Your task to perform on an android device: Go to eBay Image 0: 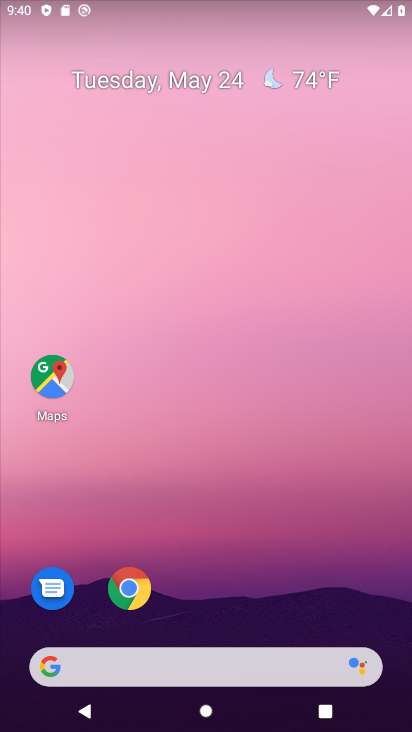
Step 0: click (135, 583)
Your task to perform on an android device: Go to eBay Image 1: 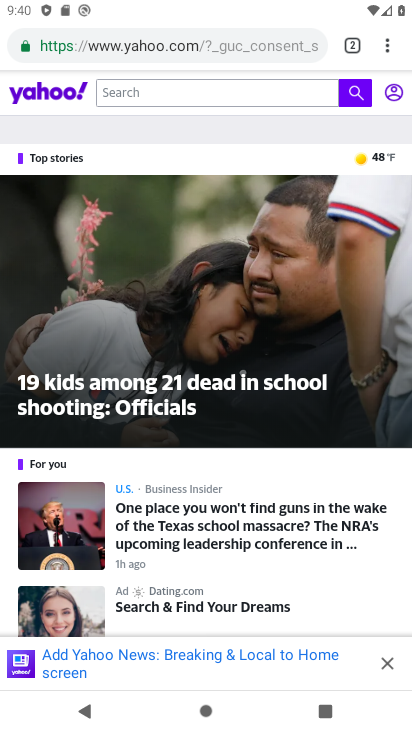
Step 1: click (357, 50)
Your task to perform on an android device: Go to eBay Image 2: 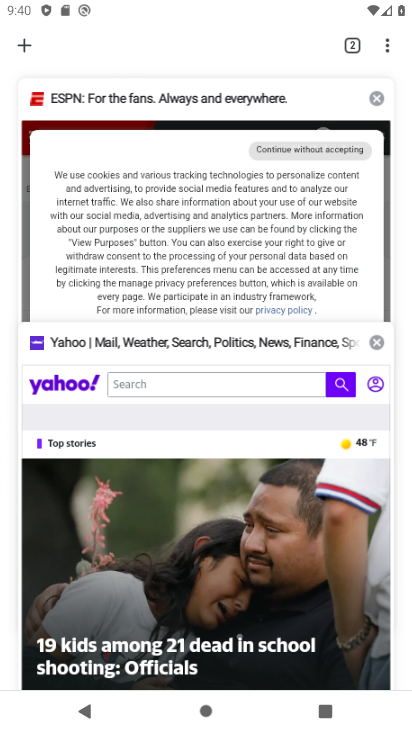
Step 2: click (31, 46)
Your task to perform on an android device: Go to eBay Image 3: 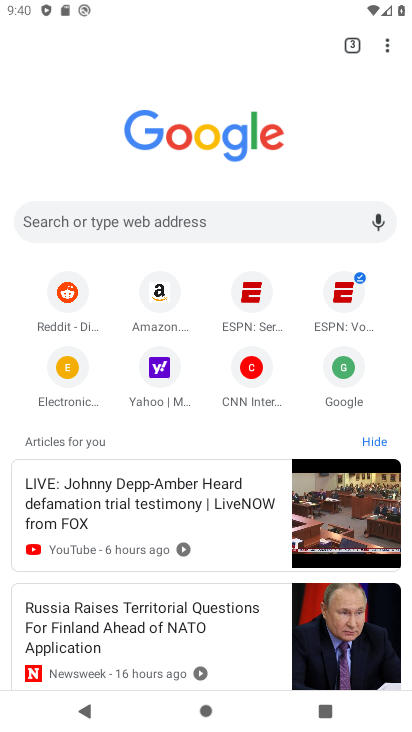
Step 3: click (78, 361)
Your task to perform on an android device: Go to eBay Image 4: 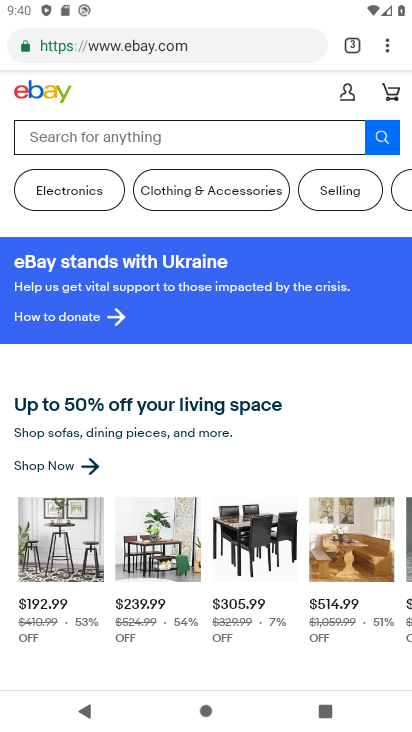
Step 4: task complete